Your task to perform on an android device: turn on showing notifications on the lock screen Image 0: 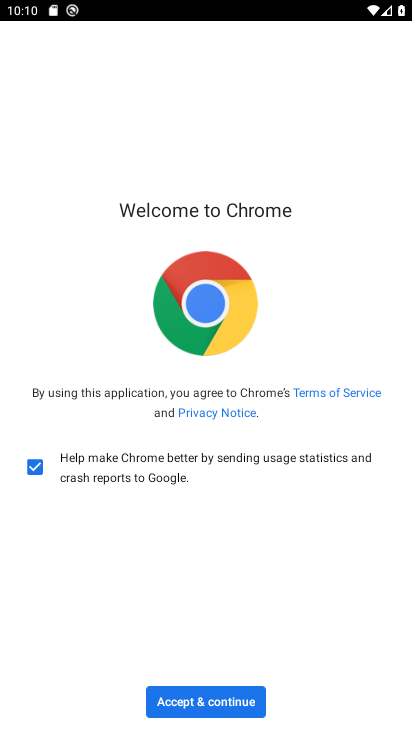
Step 0: press home button
Your task to perform on an android device: turn on showing notifications on the lock screen Image 1: 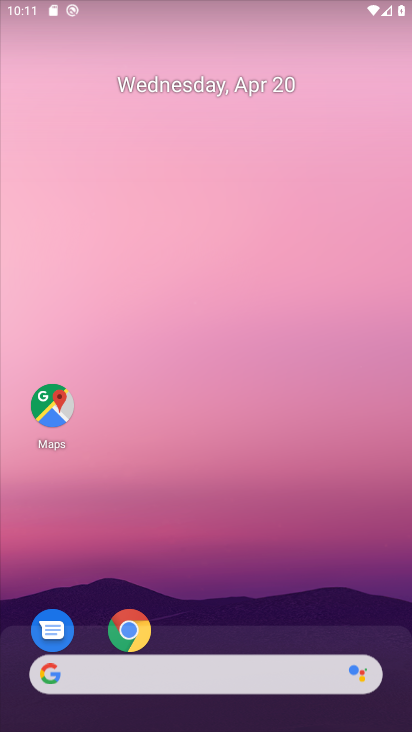
Step 1: drag from (321, 301) to (344, 191)
Your task to perform on an android device: turn on showing notifications on the lock screen Image 2: 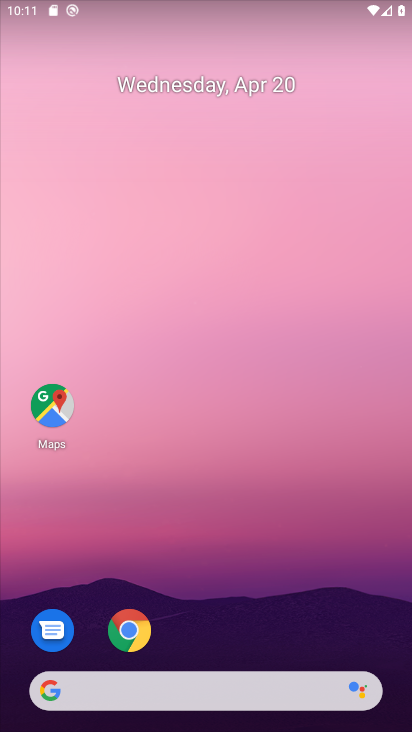
Step 2: drag from (229, 623) to (342, 62)
Your task to perform on an android device: turn on showing notifications on the lock screen Image 3: 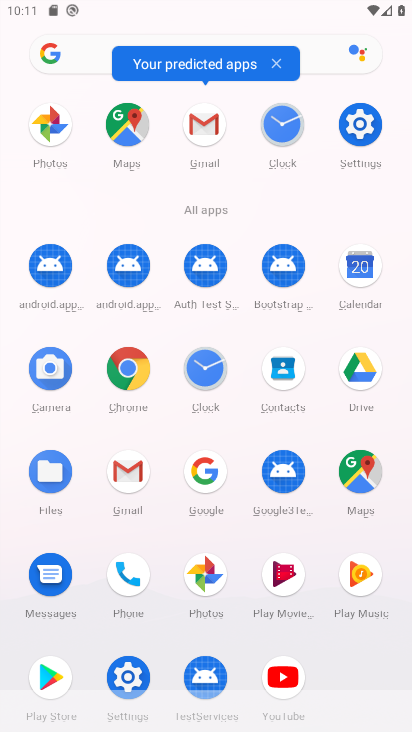
Step 3: click (358, 126)
Your task to perform on an android device: turn on showing notifications on the lock screen Image 4: 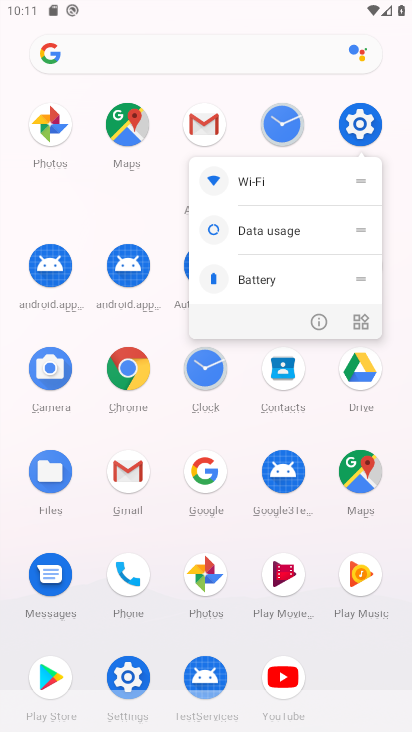
Step 4: click (358, 126)
Your task to perform on an android device: turn on showing notifications on the lock screen Image 5: 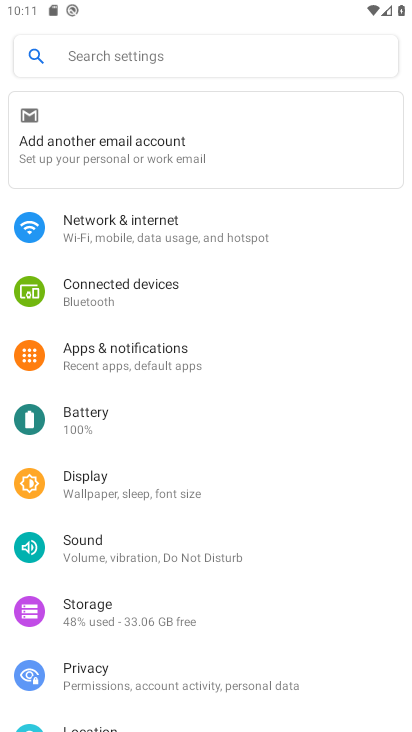
Step 5: click (156, 349)
Your task to perform on an android device: turn on showing notifications on the lock screen Image 6: 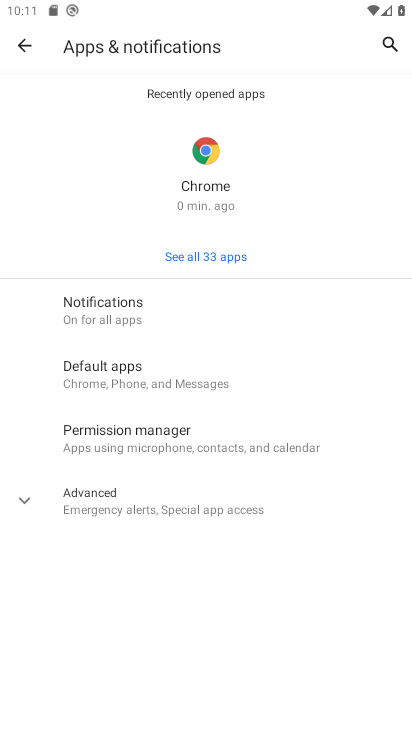
Step 6: click (165, 310)
Your task to perform on an android device: turn on showing notifications on the lock screen Image 7: 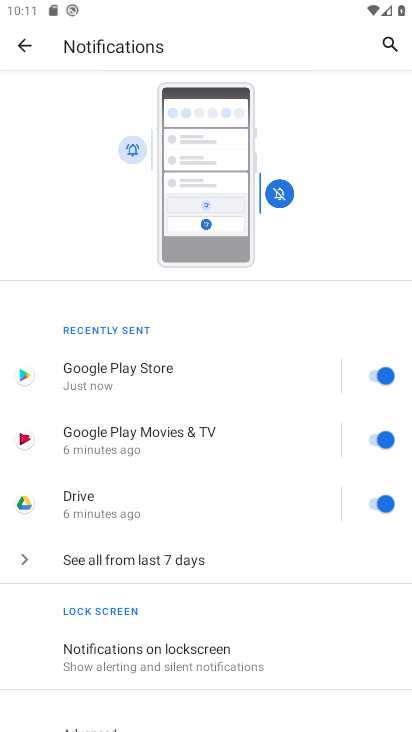
Step 7: click (135, 650)
Your task to perform on an android device: turn on showing notifications on the lock screen Image 8: 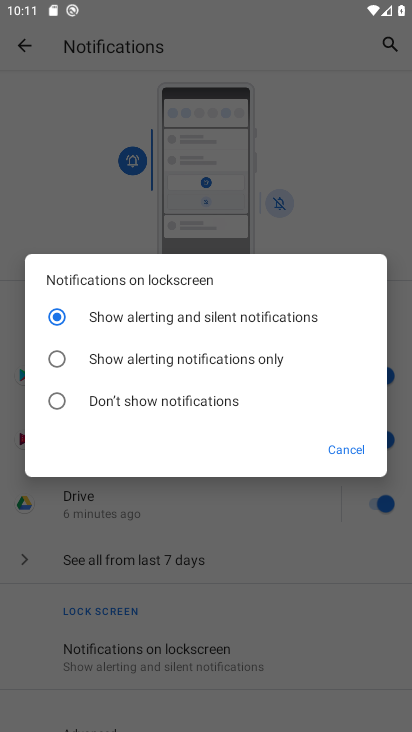
Step 8: click (152, 350)
Your task to perform on an android device: turn on showing notifications on the lock screen Image 9: 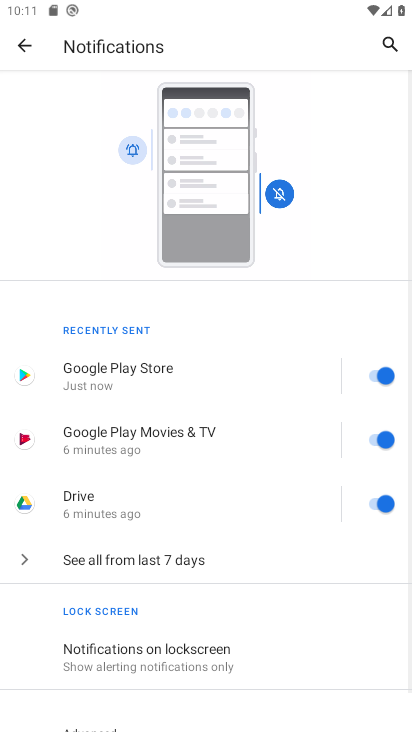
Step 9: task complete